Your task to perform on an android device: turn pop-ups on in chrome Image 0: 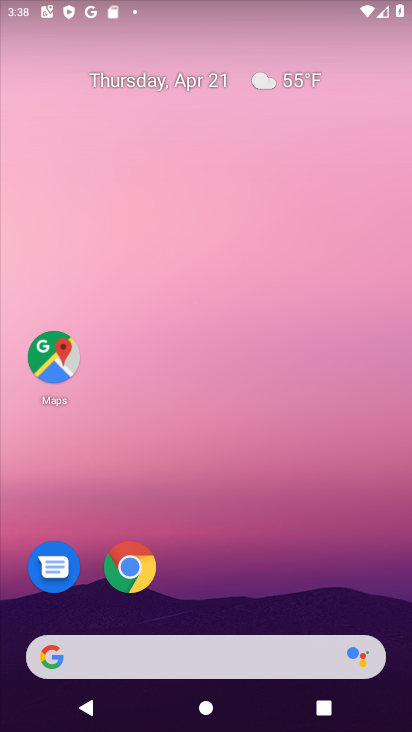
Step 0: click (124, 562)
Your task to perform on an android device: turn pop-ups on in chrome Image 1: 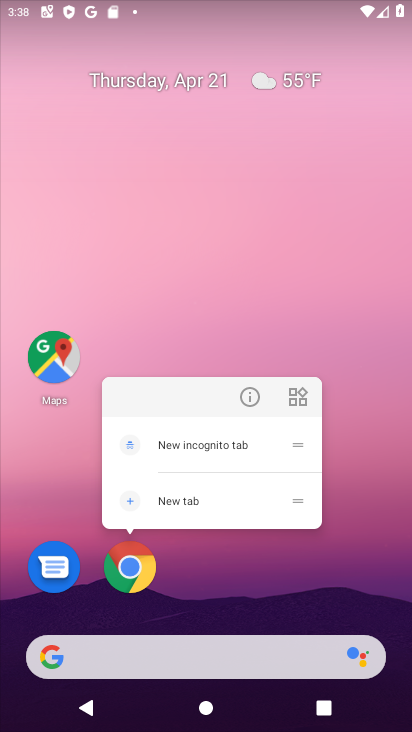
Step 1: drag from (195, 593) to (212, 165)
Your task to perform on an android device: turn pop-ups on in chrome Image 2: 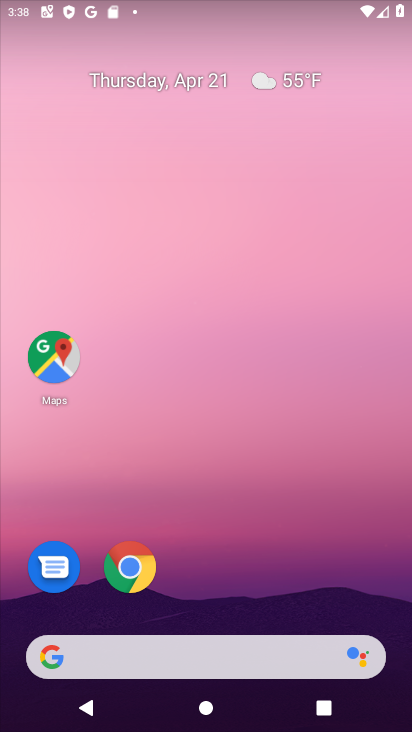
Step 2: drag from (225, 537) to (244, 126)
Your task to perform on an android device: turn pop-ups on in chrome Image 3: 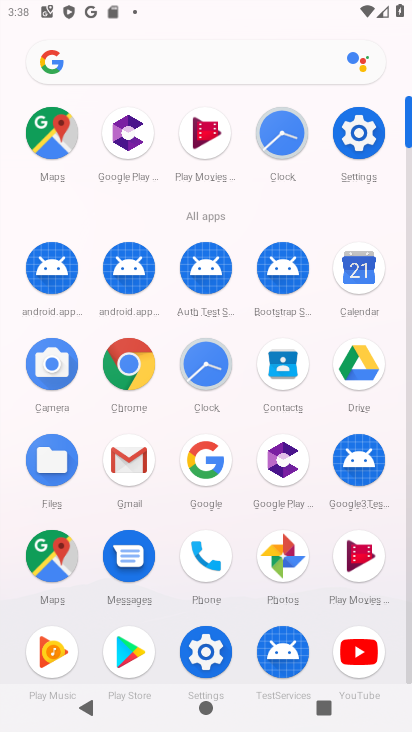
Step 3: click (128, 362)
Your task to perform on an android device: turn pop-ups on in chrome Image 4: 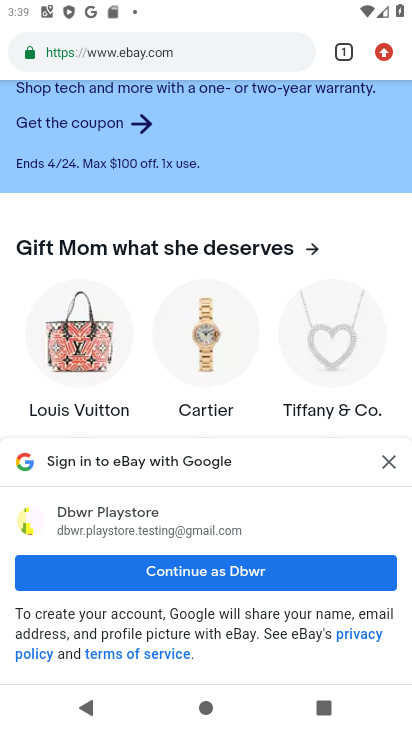
Step 4: click (380, 48)
Your task to perform on an android device: turn pop-ups on in chrome Image 5: 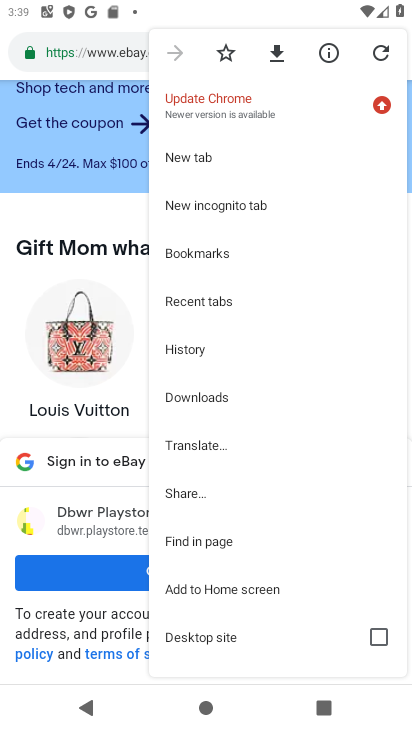
Step 5: drag from (276, 349) to (296, 220)
Your task to perform on an android device: turn pop-ups on in chrome Image 6: 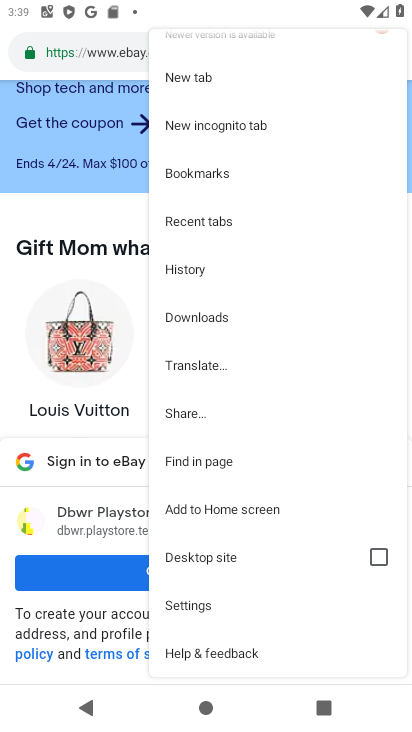
Step 6: click (227, 606)
Your task to perform on an android device: turn pop-ups on in chrome Image 7: 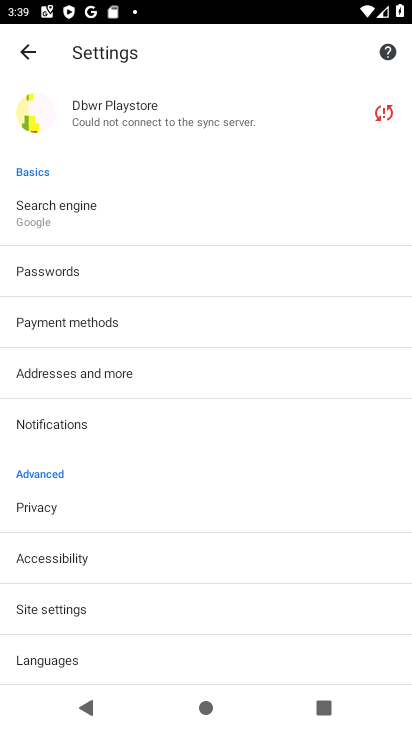
Step 7: click (103, 598)
Your task to perform on an android device: turn pop-ups on in chrome Image 8: 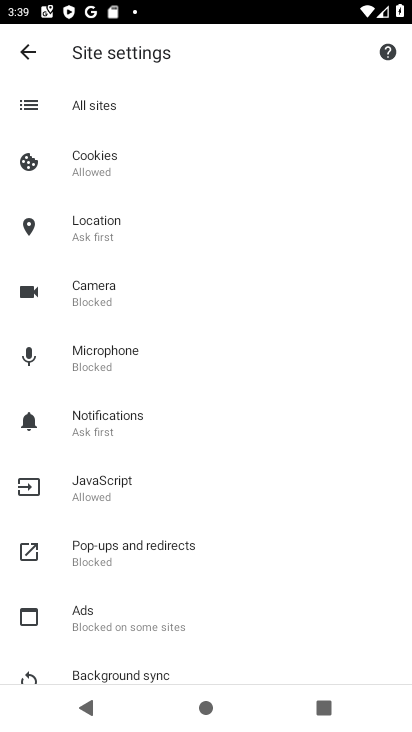
Step 8: click (162, 549)
Your task to perform on an android device: turn pop-ups on in chrome Image 9: 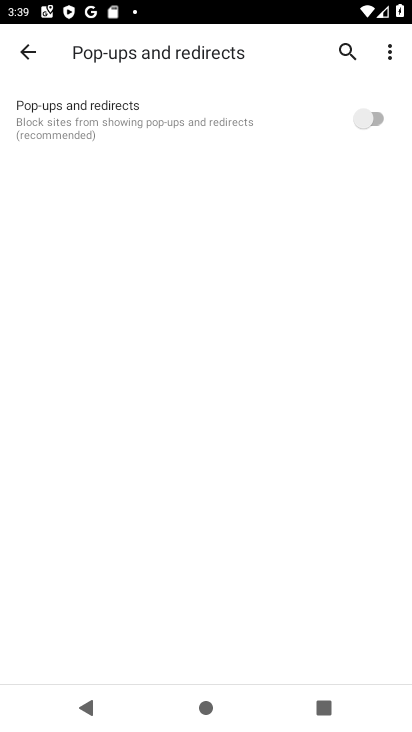
Step 9: click (375, 113)
Your task to perform on an android device: turn pop-ups on in chrome Image 10: 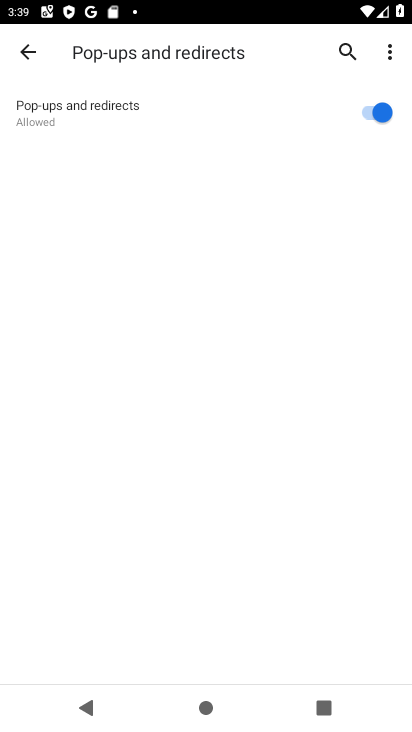
Step 10: task complete